Your task to perform on an android device: turn pop-ups off in chrome Image 0: 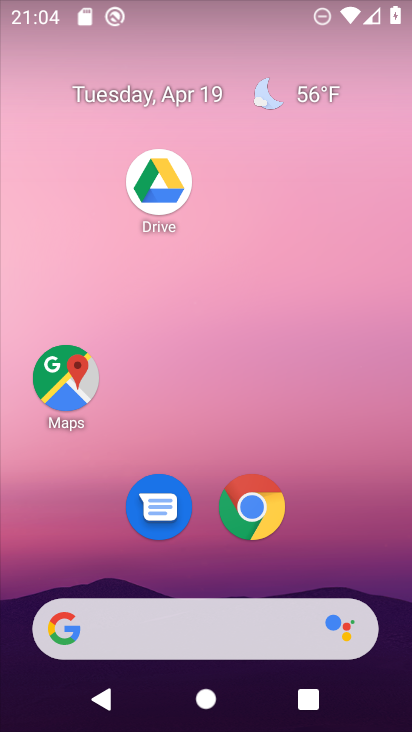
Step 0: click (246, 502)
Your task to perform on an android device: turn pop-ups off in chrome Image 1: 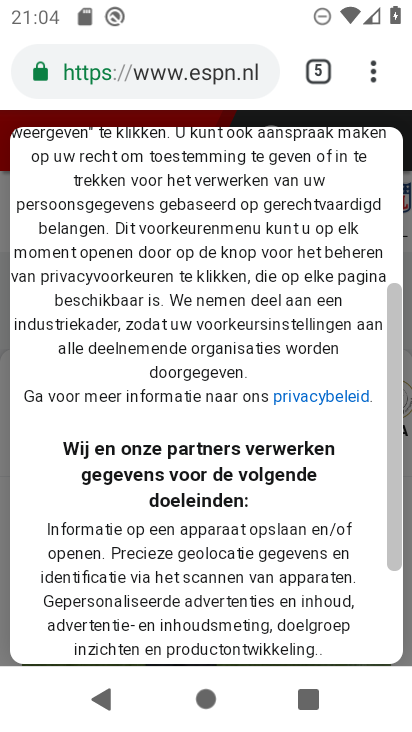
Step 1: click (368, 61)
Your task to perform on an android device: turn pop-ups off in chrome Image 2: 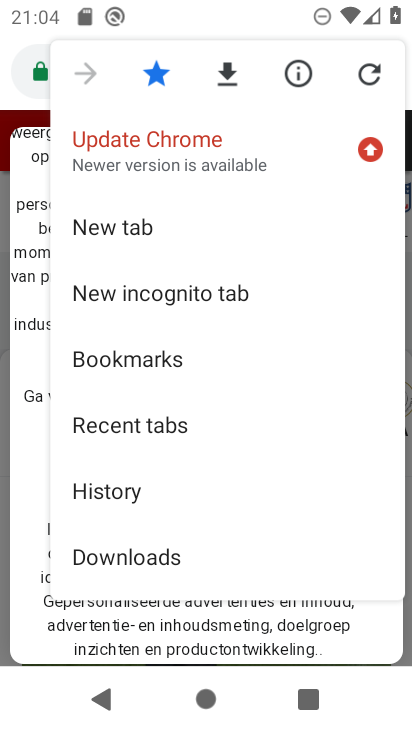
Step 2: drag from (290, 514) to (279, 212)
Your task to perform on an android device: turn pop-ups off in chrome Image 3: 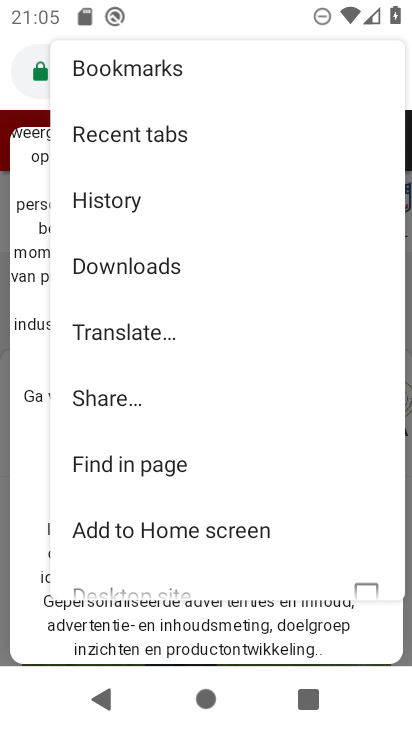
Step 3: drag from (238, 423) to (214, 155)
Your task to perform on an android device: turn pop-ups off in chrome Image 4: 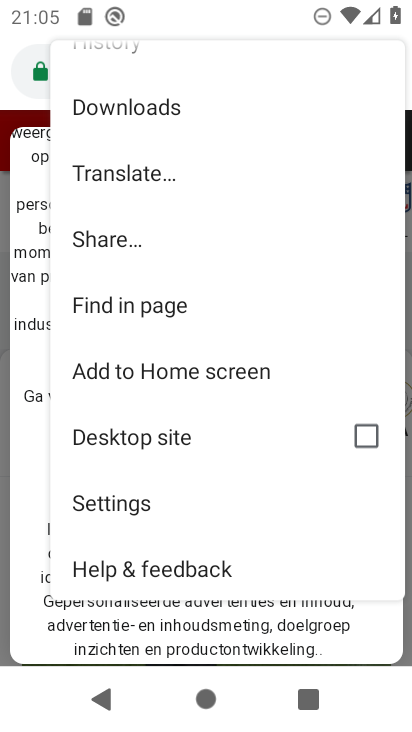
Step 4: click (195, 503)
Your task to perform on an android device: turn pop-ups off in chrome Image 5: 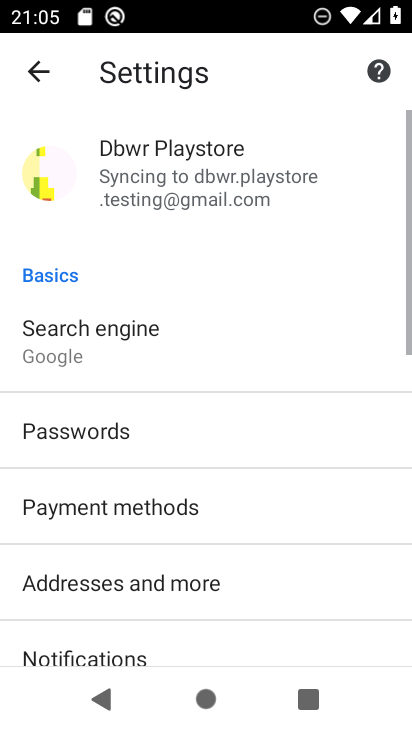
Step 5: drag from (245, 599) to (253, 239)
Your task to perform on an android device: turn pop-ups off in chrome Image 6: 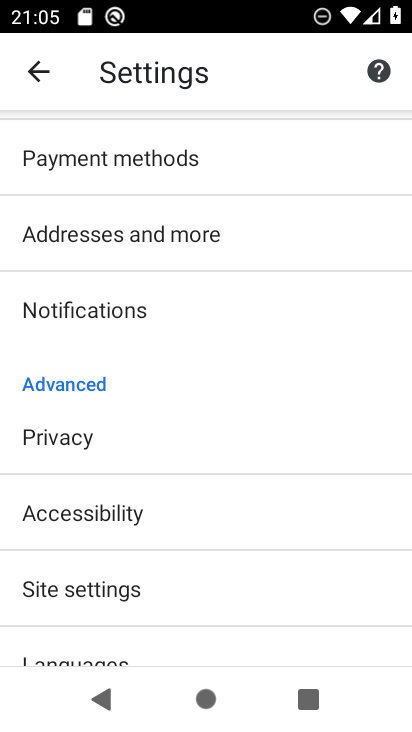
Step 6: click (270, 573)
Your task to perform on an android device: turn pop-ups off in chrome Image 7: 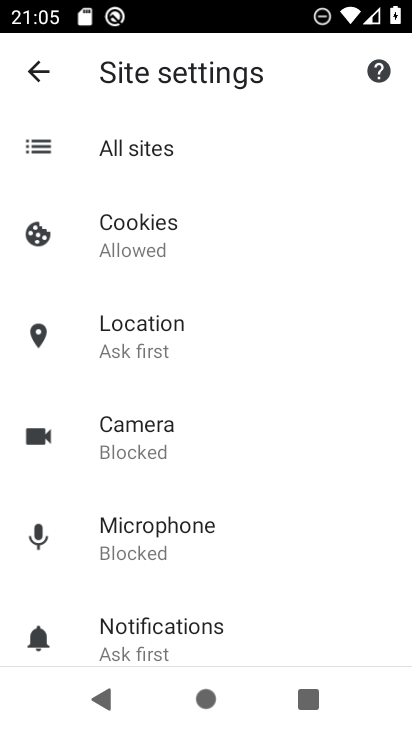
Step 7: drag from (270, 573) to (226, 195)
Your task to perform on an android device: turn pop-ups off in chrome Image 8: 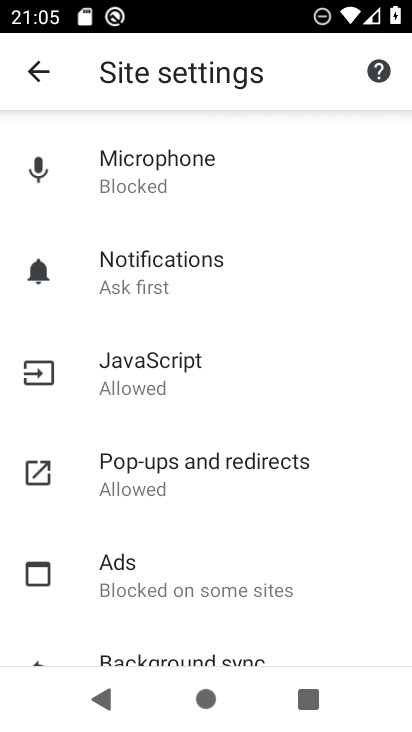
Step 8: click (261, 465)
Your task to perform on an android device: turn pop-ups off in chrome Image 9: 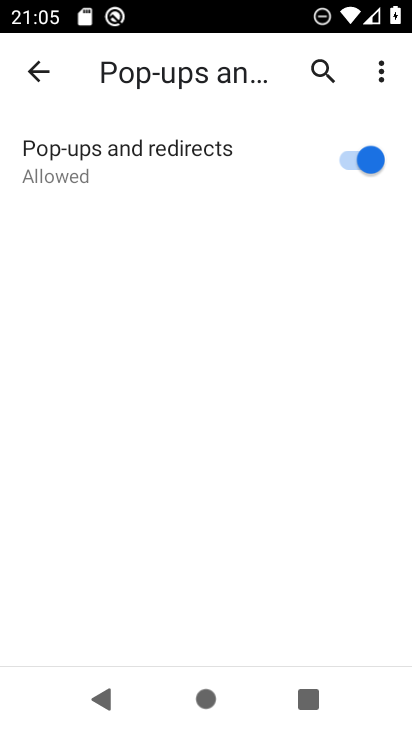
Step 9: click (344, 148)
Your task to perform on an android device: turn pop-ups off in chrome Image 10: 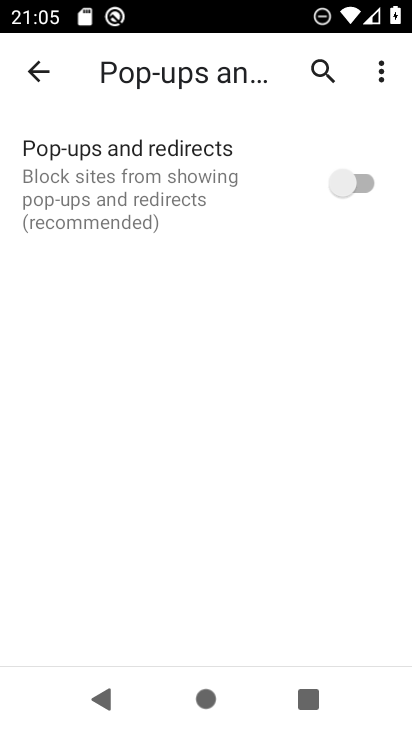
Step 10: task complete